Your task to perform on an android device: Open accessibility settings Image 0: 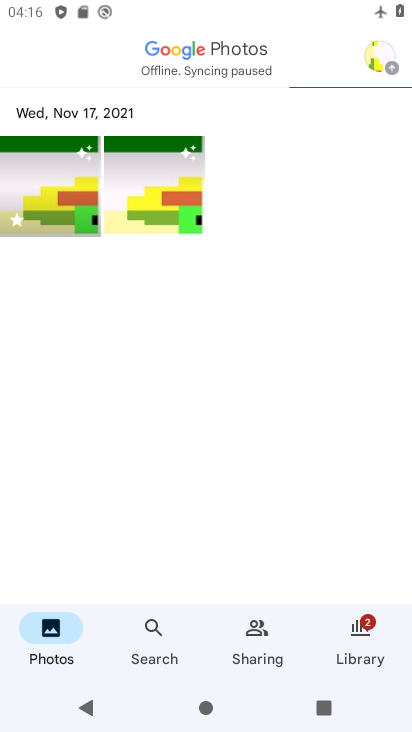
Step 0: press home button
Your task to perform on an android device: Open accessibility settings Image 1: 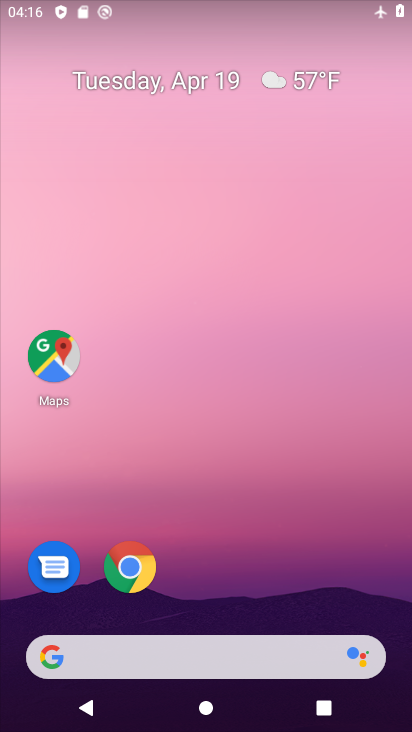
Step 1: drag from (372, 564) to (382, 216)
Your task to perform on an android device: Open accessibility settings Image 2: 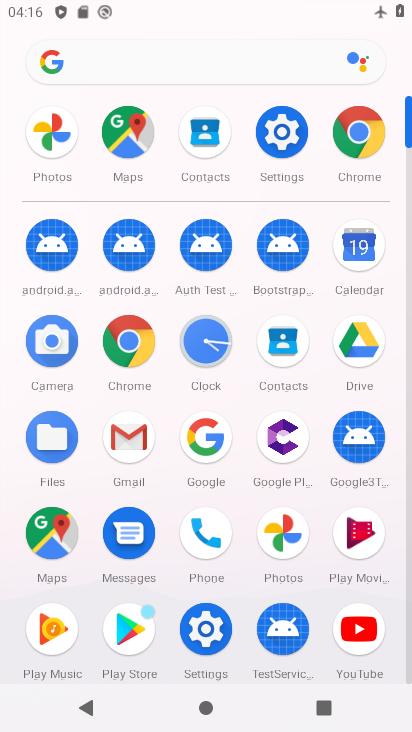
Step 2: click (210, 628)
Your task to perform on an android device: Open accessibility settings Image 3: 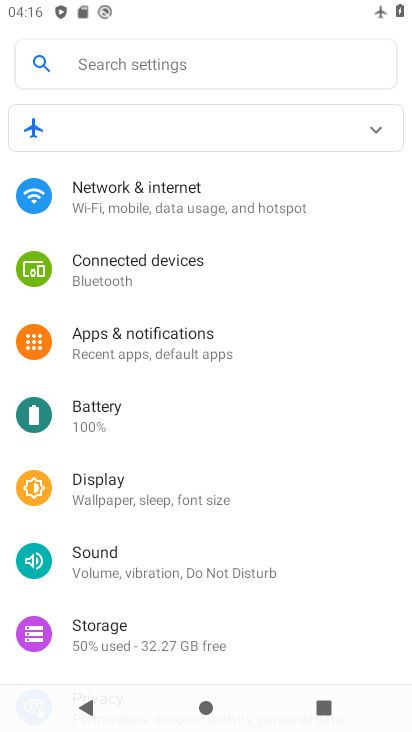
Step 3: drag from (359, 568) to (363, 445)
Your task to perform on an android device: Open accessibility settings Image 4: 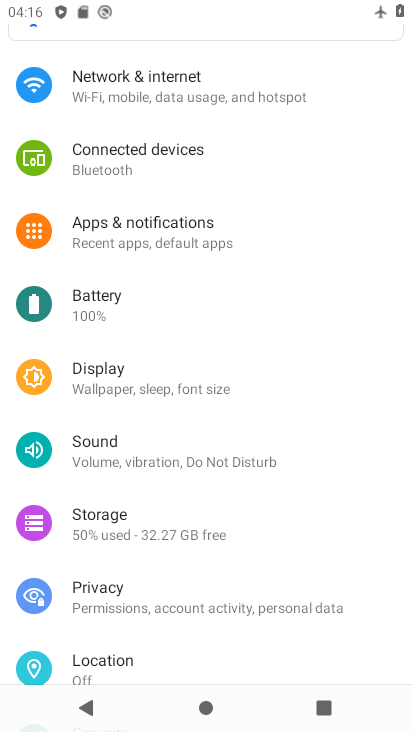
Step 4: drag from (355, 630) to (367, 466)
Your task to perform on an android device: Open accessibility settings Image 5: 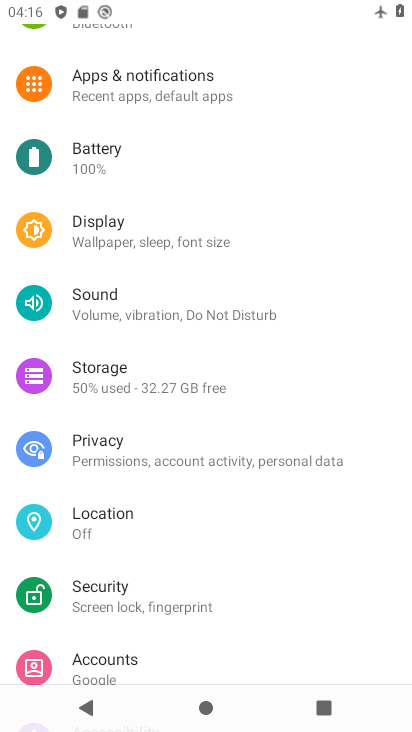
Step 5: drag from (357, 576) to (367, 361)
Your task to perform on an android device: Open accessibility settings Image 6: 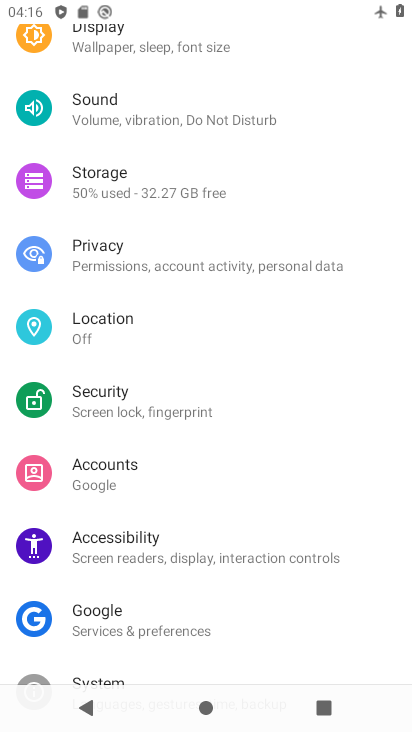
Step 6: drag from (363, 625) to (354, 351)
Your task to perform on an android device: Open accessibility settings Image 7: 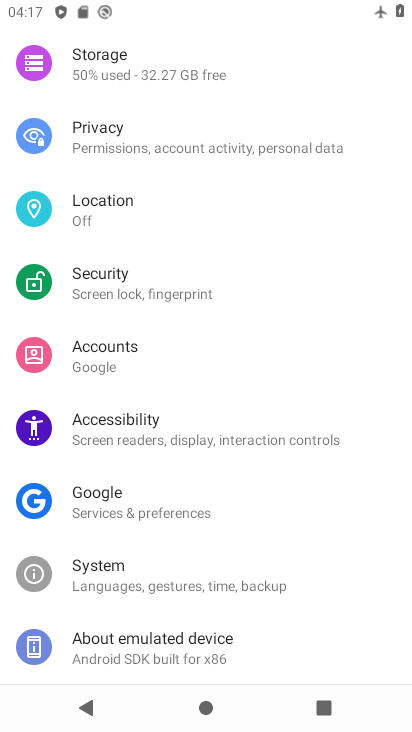
Step 7: drag from (368, 301) to (361, 488)
Your task to perform on an android device: Open accessibility settings Image 8: 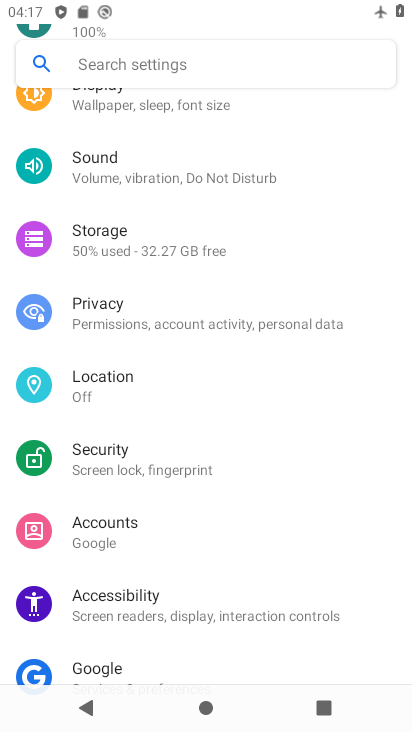
Step 8: drag from (369, 349) to (368, 522)
Your task to perform on an android device: Open accessibility settings Image 9: 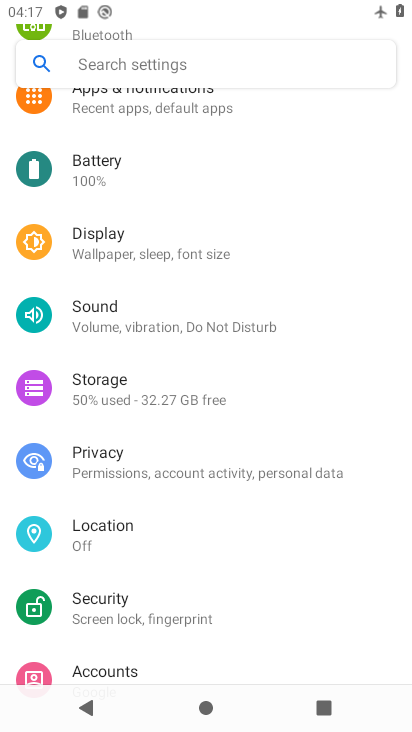
Step 9: drag from (370, 318) to (375, 518)
Your task to perform on an android device: Open accessibility settings Image 10: 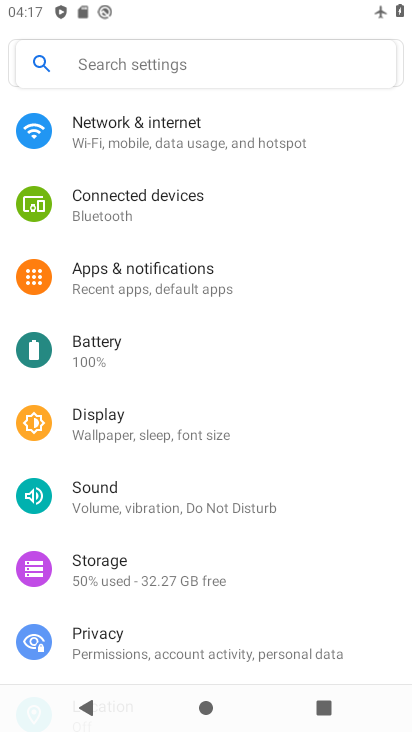
Step 10: drag from (373, 292) to (364, 557)
Your task to perform on an android device: Open accessibility settings Image 11: 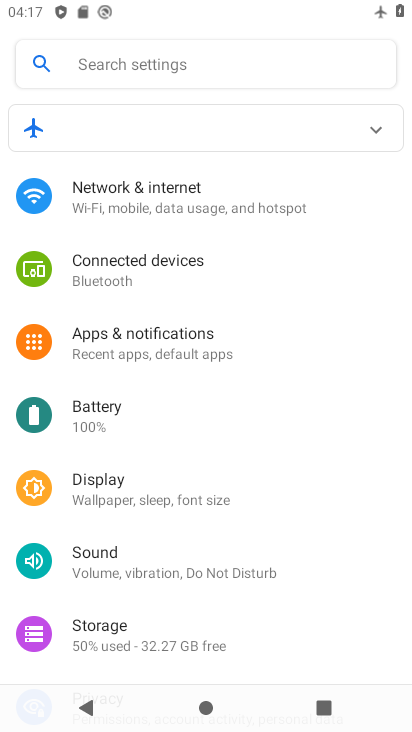
Step 11: drag from (362, 575) to (367, 395)
Your task to perform on an android device: Open accessibility settings Image 12: 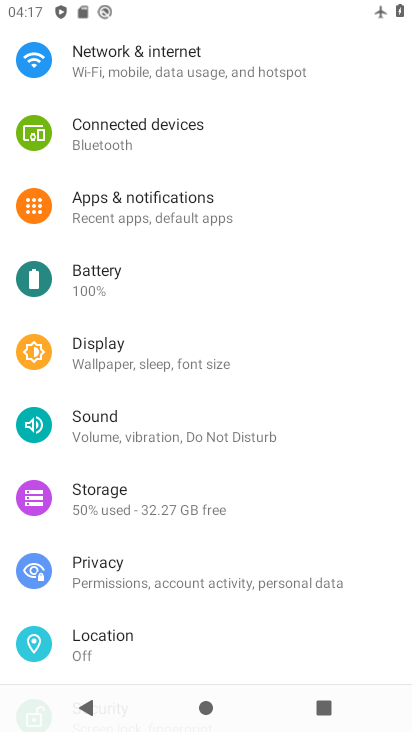
Step 12: drag from (369, 541) to (360, 372)
Your task to perform on an android device: Open accessibility settings Image 13: 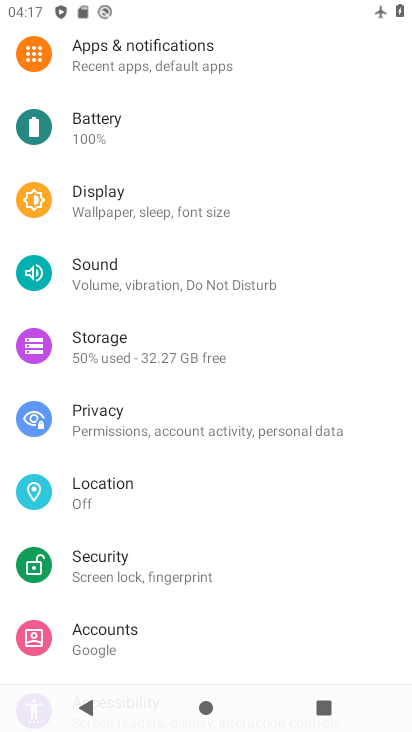
Step 13: drag from (356, 554) to (366, 364)
Your task to perform on an android device: Open accessibility settings Image 14: 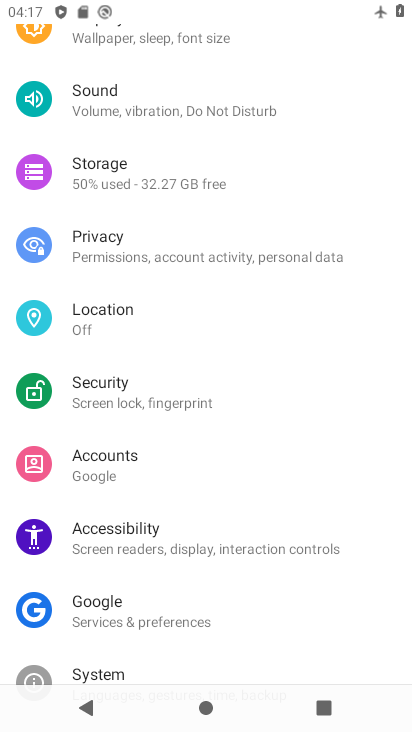
Step 14: click (287, 547)
Your task to perform on an android device: Open accessibility settings Image 15: 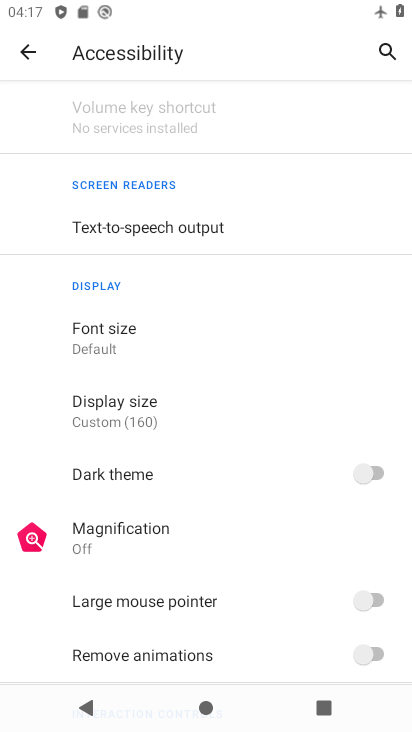
Step 15: task complete